Your task to perform on an android device: turn on bluetooth scan Image 0: 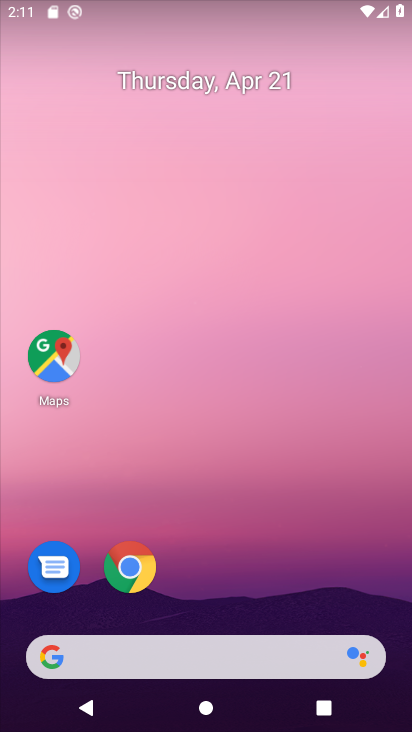
Step 0: drag from (259, 497) to (204, 17)
Your task to perform on an android device: turn on bluetooth scan Image 1: 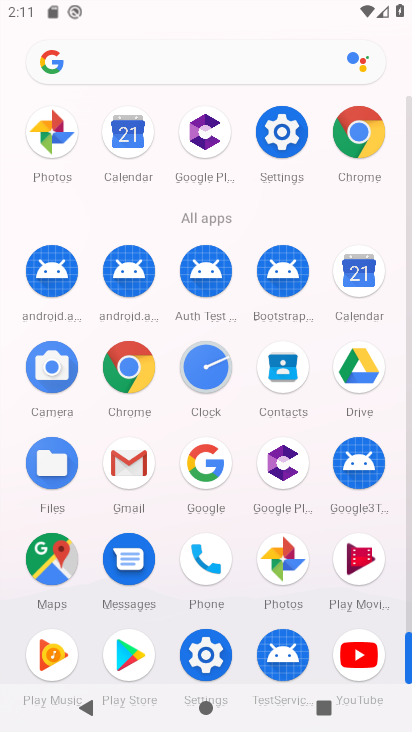
Step 1: click (205, 653)
Your task to perform on an android device: turn on bluetooth scan Image 2: 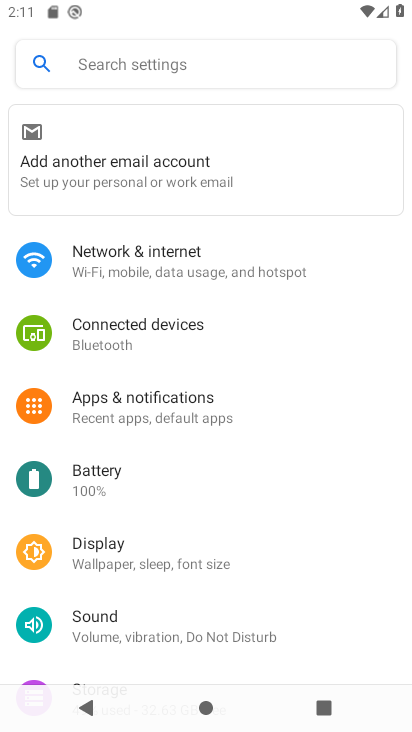
Step 2: drag from (219, 539) to (221, 221)
Your task to perform on an android device: turn on bluetooth scan Image 3: 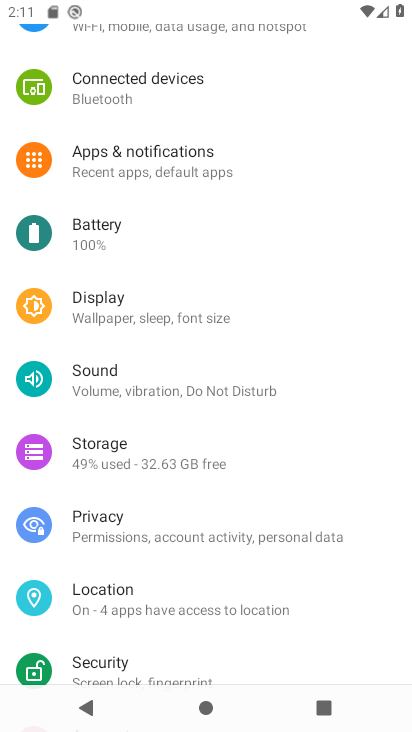
Step 3: drag from (236, 537) to (254, 227)
Your task to perform on an android device: turn on bluetooth scan Image 4: 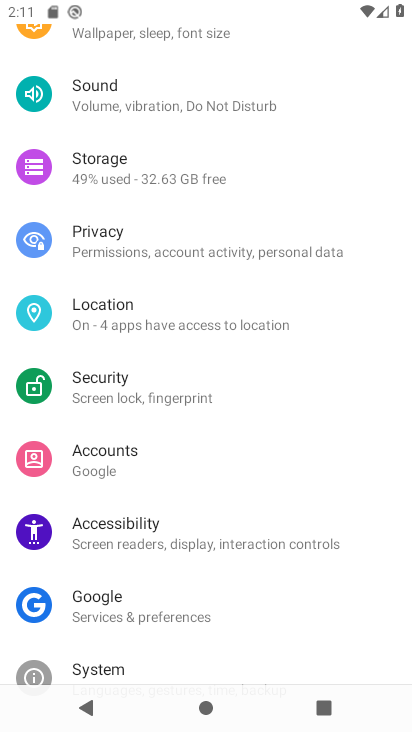
Step 4: click (145, 304)
Your task to perform on an android device: turn on bluetooth scan Image 5: 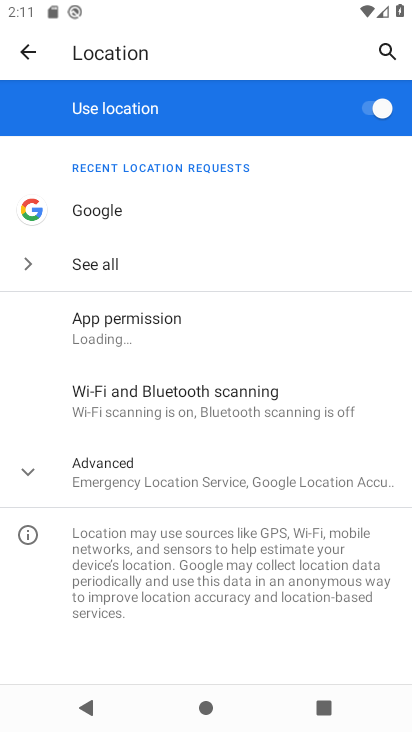
Step 5: click (196, 396)
Your task to perform on an android device: turn on bluetooth scan Image 6: 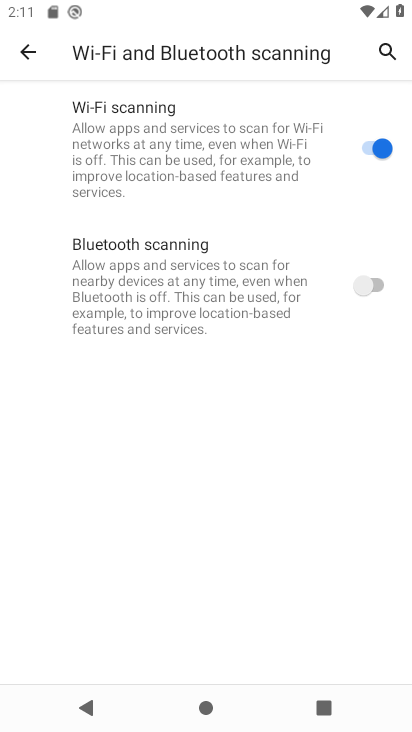
Step 6: click (371, 274)
Your task to perform on an android device: turn on bluetooth scan Image 7: 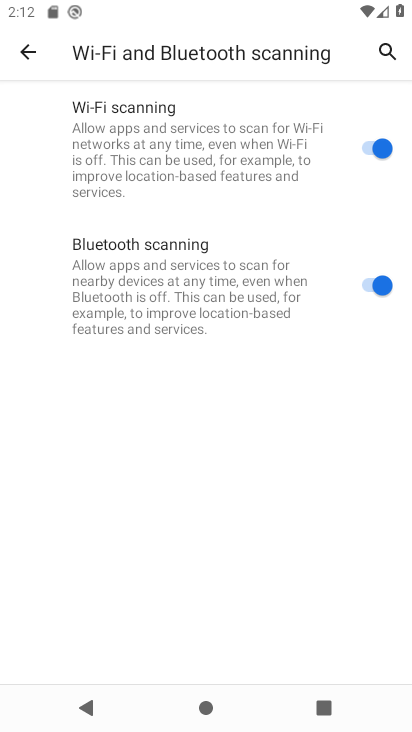
Step 7: task complete